Your task to perform on an android device: Open Google Chrome and click the shortcut for Amazon.com Image 0: 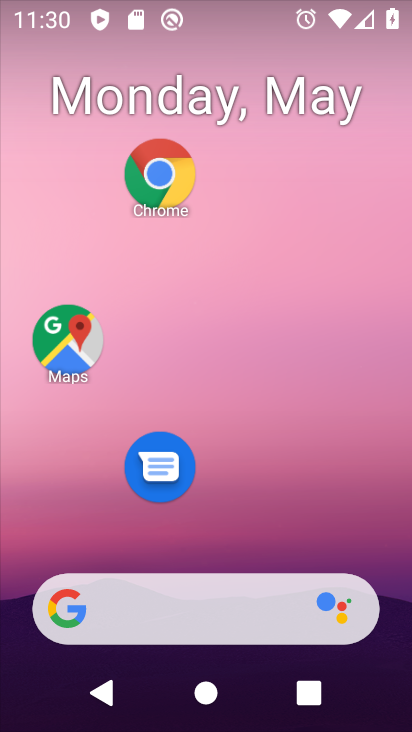
Step 0: click (170, 186)
Your task to perform on an android device: Open Google Chrome and click the shortcut for Amazon.com Image 1: 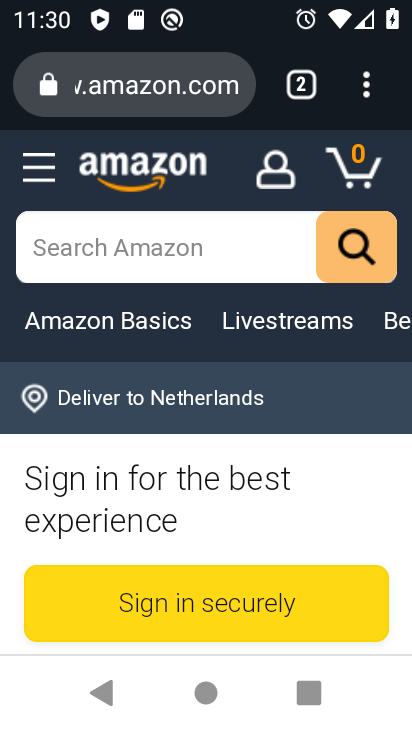
Step 1: click (298, 91)
Your task to perform on an android device: Open Google Chrome and click the shortcut for Amazon.com Image 2: 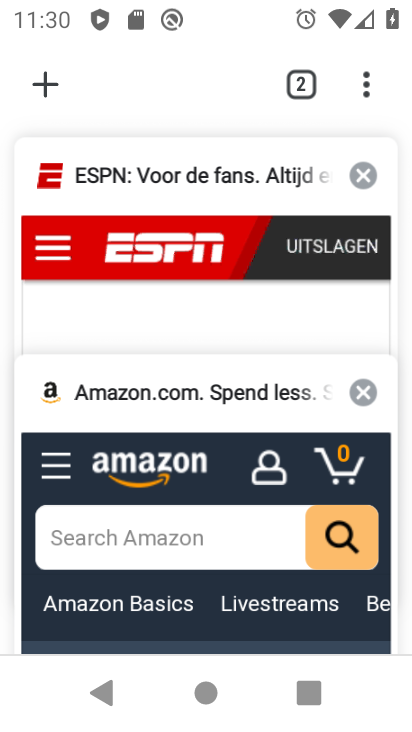
Step 2: click (50, 81)
Your task to perform on an android device: Open Google Chrome and click the shortcut for Amazon.com Image 3: 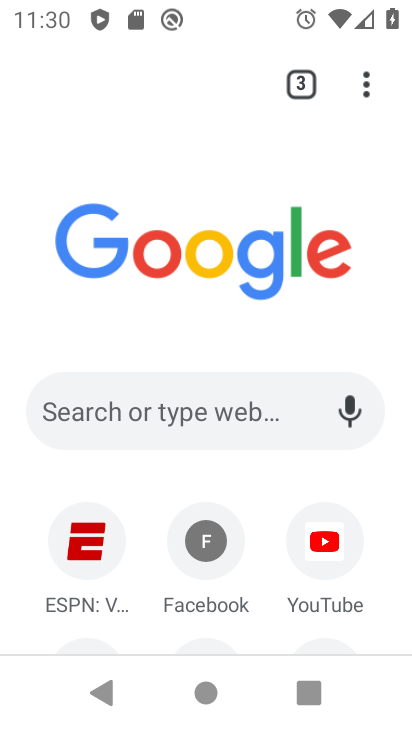
Step 3: drag from (245, 486) to (180, 137)
Your task to perform on an android device: Open Google Chrome and click the shortcut for Amazon.com Image 4: 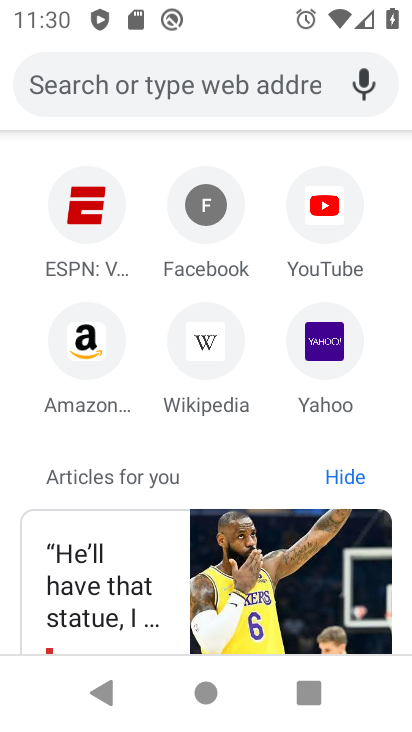
Step 4: click (82, 358)
Your task to perform on an android device: Open Google Chrome and click the shortcut for Amazon.com Image 5: 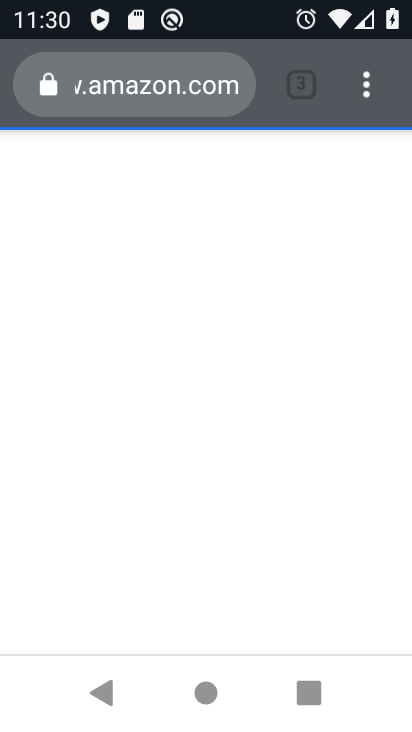
Step 5: task complete